Your task to perform on an android device: What's the weather today? Image 0: 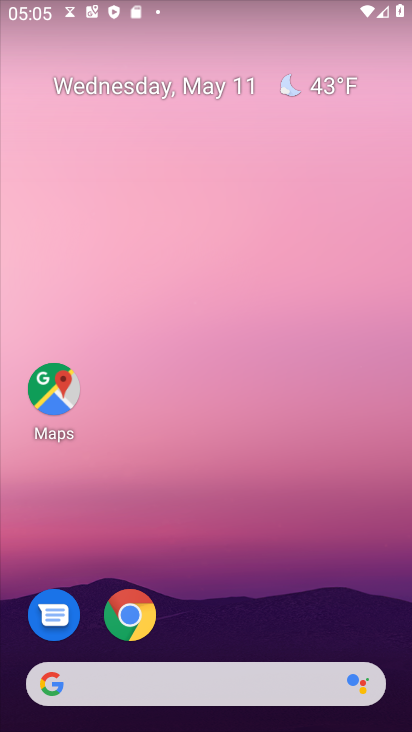
Step 0: drag from (263, 558) to (253, 51)
Your task to perform on an android device: What's the weather today? Image 1: 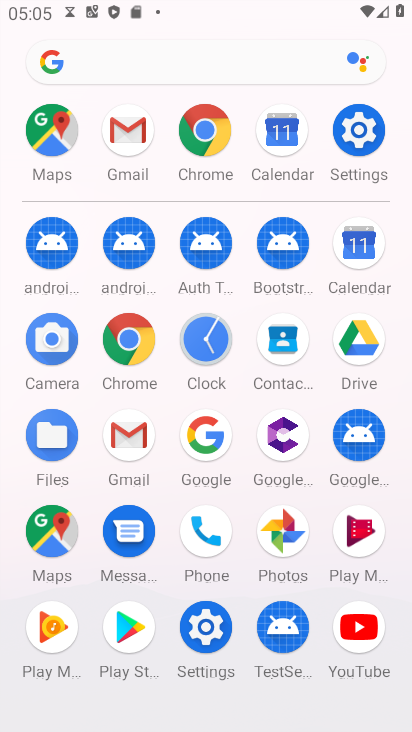
Step 1: drag from (6, 573) to (17, 227)
Your task to perform on an android device: What's the weather today? Image 2: 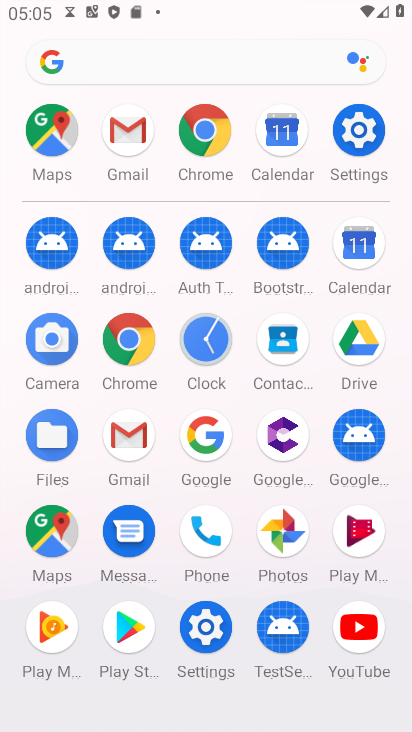
Step 2: click (136, 338)
Your task to perform on an android device: What's the weather today? Image 3: 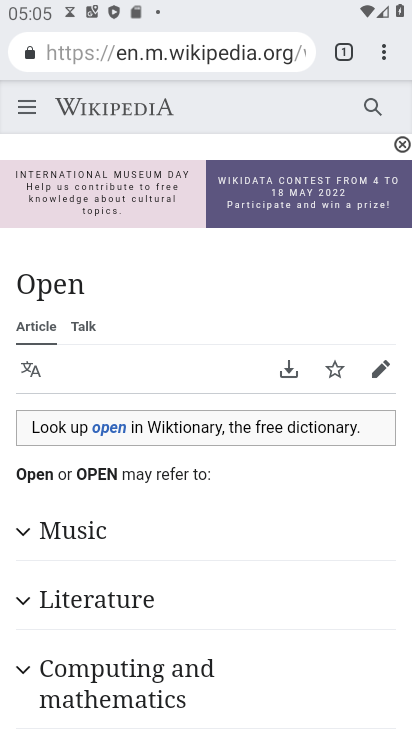
Step 3: click (132, 50)
Your task to perform on an android device: What's the weather today? Image 4: 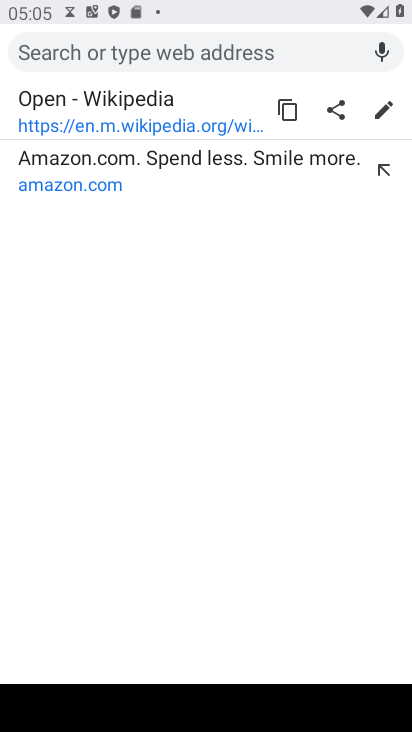
Step 4: type "What's the weather today?"
Your task to perform on an android device: What's the weather today? Image 5: 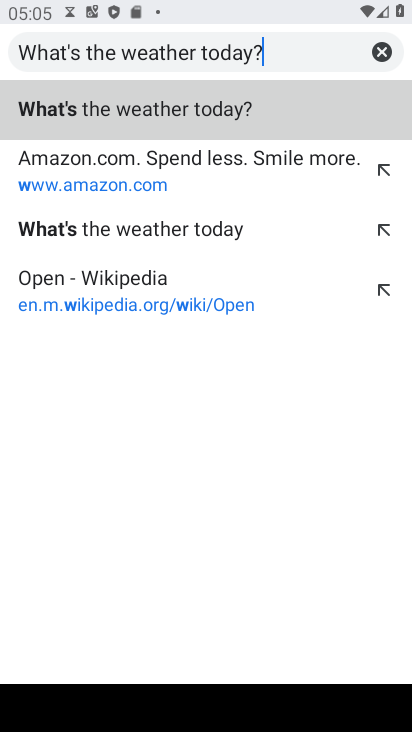
Step 5: type ""
Your task to perform on an android device: What's the weather today? Image 6: 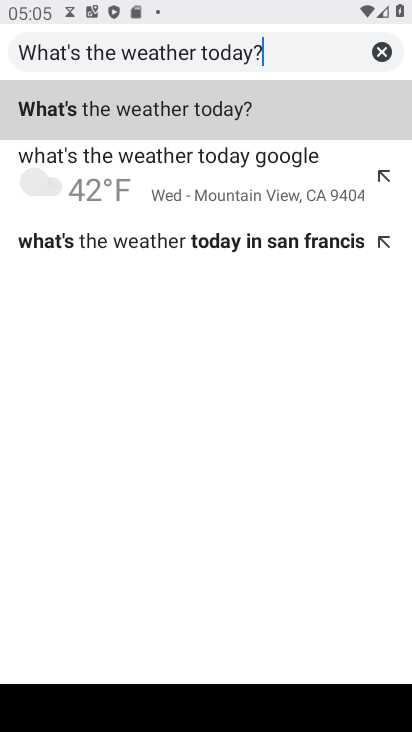
Step 6: click (132, 112)
Your task to perform on an android device: What's the weather today? Image 7: 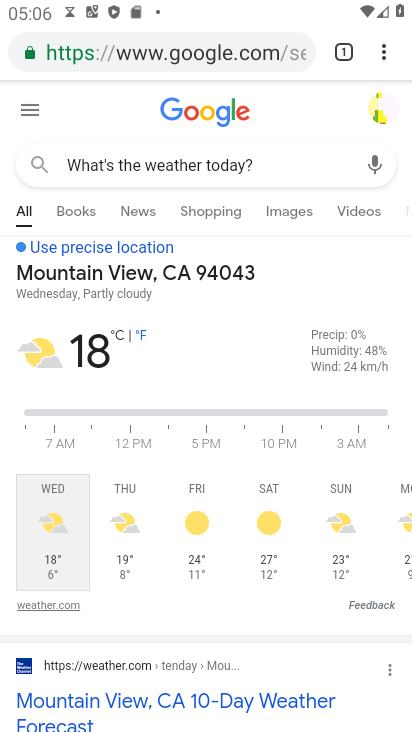
Step 7: task complete